Your task to perform on an android device: turn off priority inbox in the gmail app Image 0: 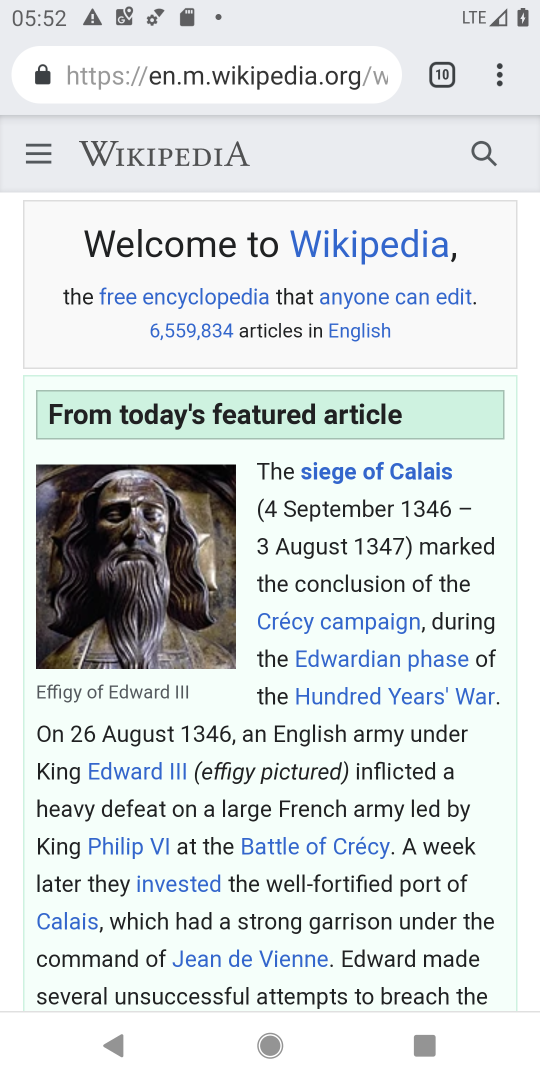
Step 0: click (502, 84)
Your task to perform on an android device: turn off priority inbox in the gmail app Image 1: 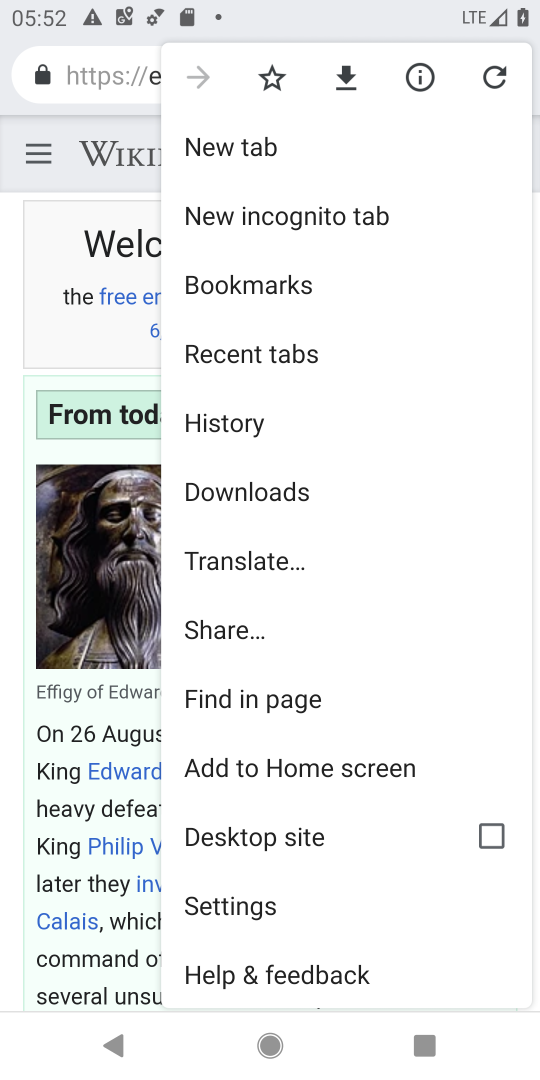
Step 1: click (222, 912)
Your task to perform on an android device: turn off priority inbox in the gmail app Image 2: 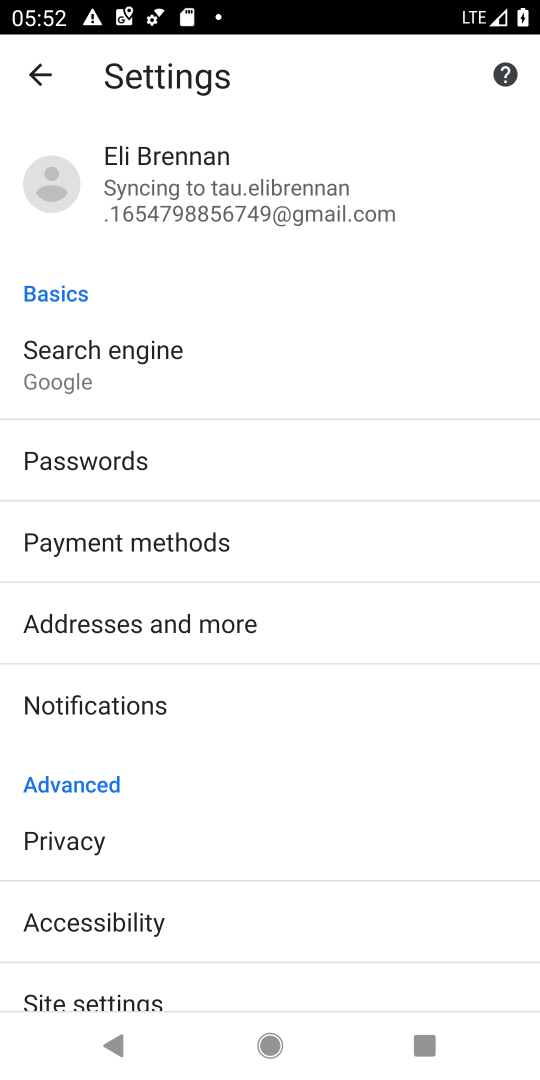
Step 2: drag from (79, 998) to (128, 550)
Your task to perform on an android device: turn off priority inbox in the gmail app Image 3: 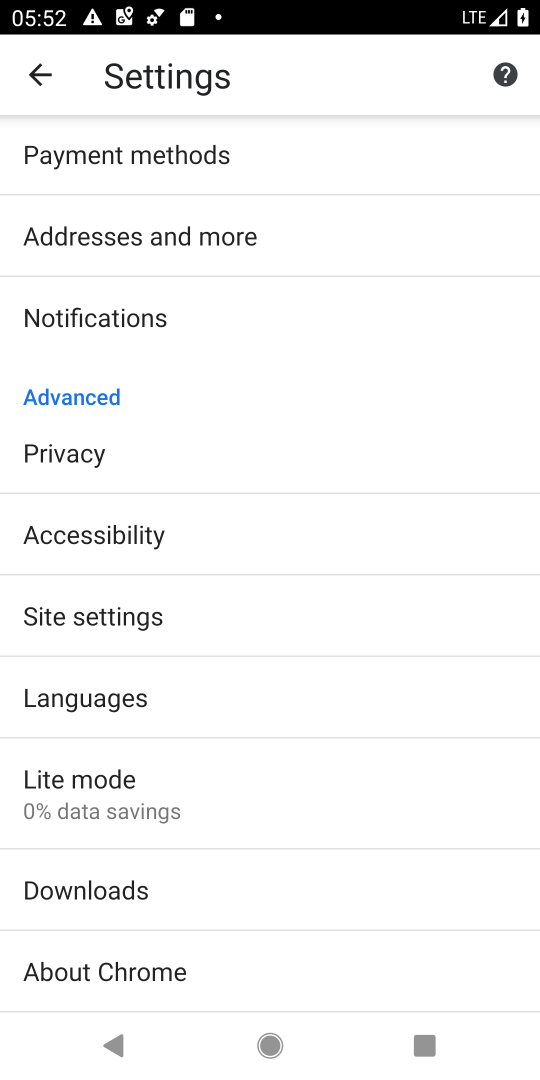
Step 3: click (111, 599)
Your task to perform on an android device: turn off priority inbox in the gmail app Image 4: 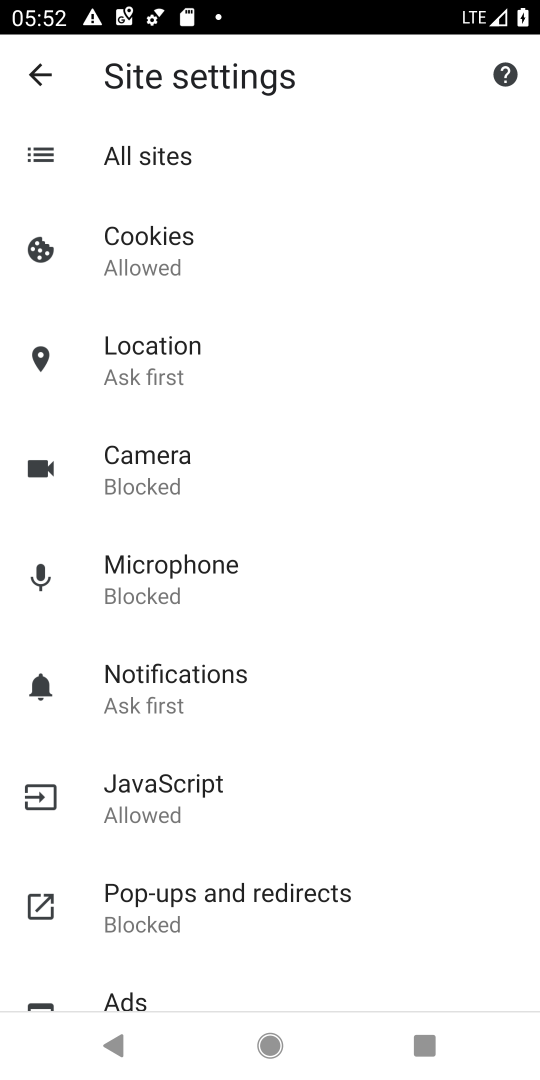
Step 4: drag from (172, 482) to (212, 866)
Your task to perform on an android device: turn off priority inbox in the gmail app Image 5: 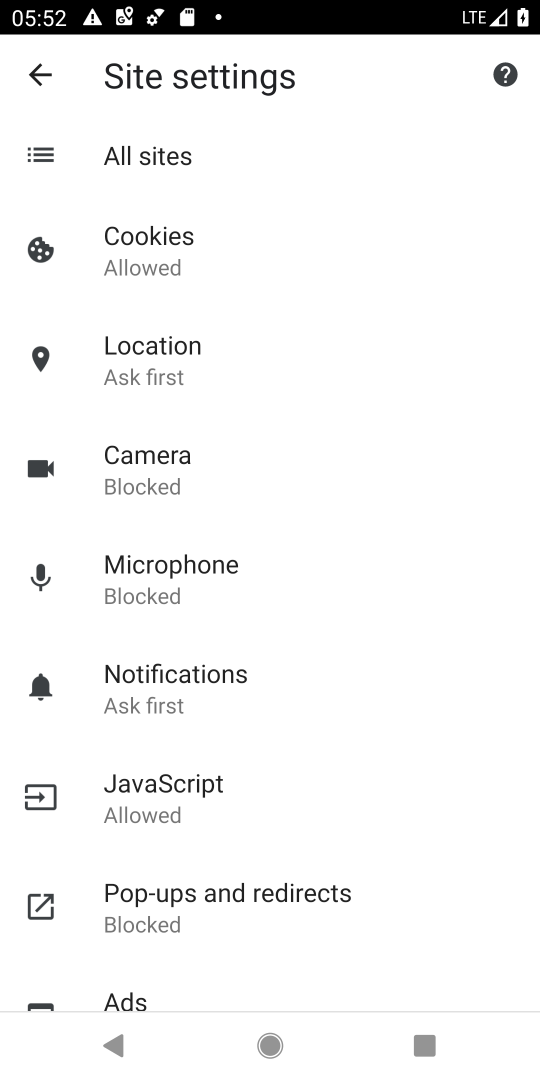
Step 5: drag from (178, 908) to (191, 506)
Your task to perform on an android device: turn off priority inbox in the gmail app Image 6: 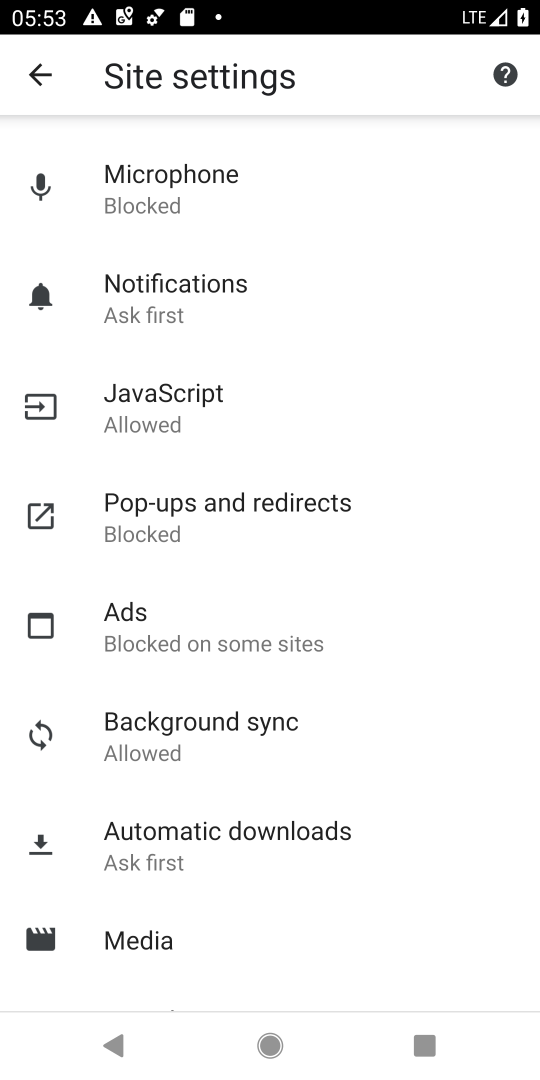
Step 6: drag from (168, 911) to (163, 585)
Your task to perform on an android device: turn off priority inbox in the gmail app Image 7: 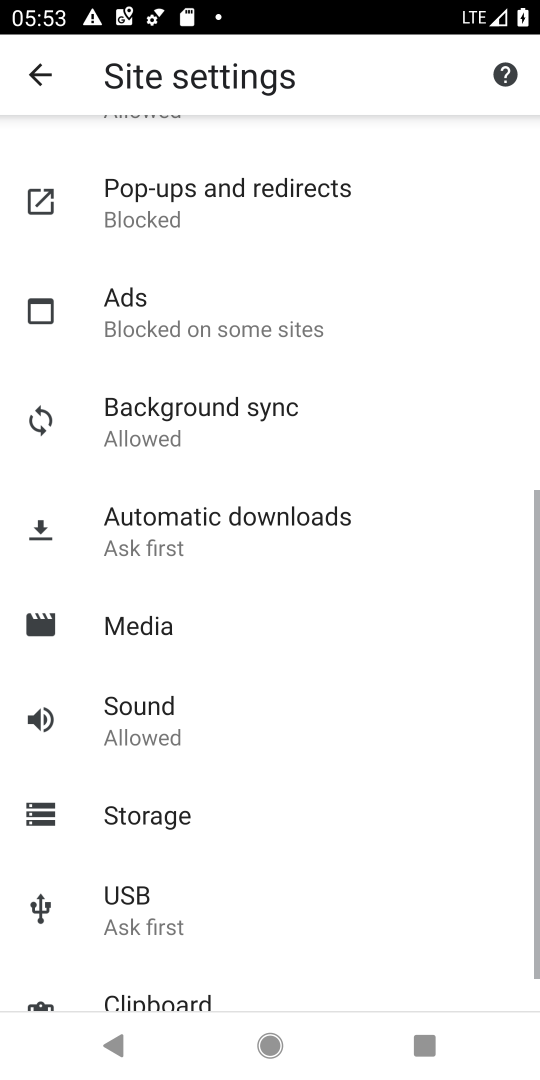
Step 7: press home button
Your task to perform on an android device: turn off priority inbox in the gmail app Image 8: 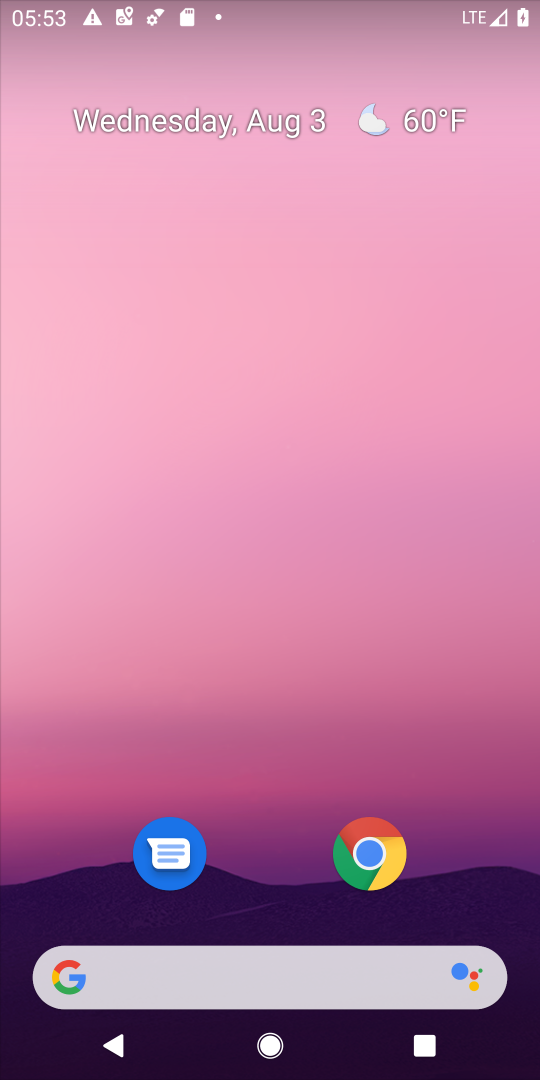
Step 8: drag from (340, 797) to (338, 267)
Your task to perform on an android device: turn off priority inbox in the gmail app Image 9: 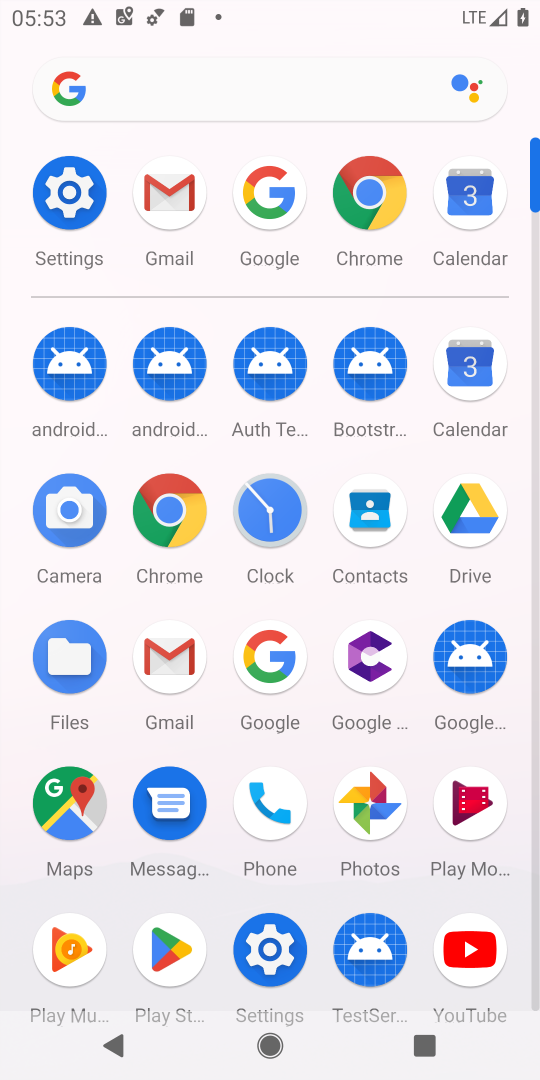
Step 9: click (165, 655)
Your task to perform on an android device: turn off priority inbox in the gmail app Image 10: 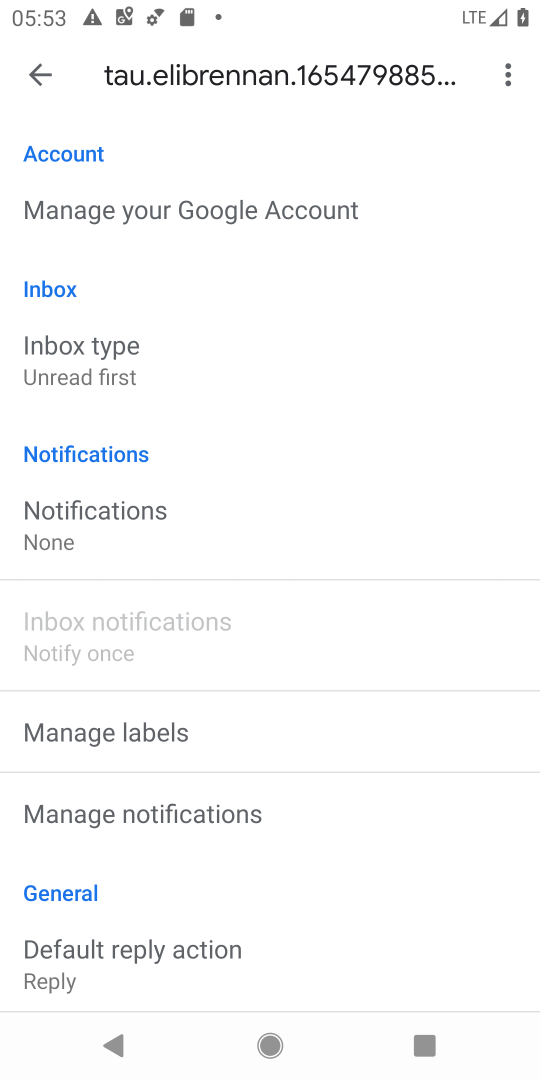
Step 10: task complete